Your task to perform on an android device: check android version Image 0: 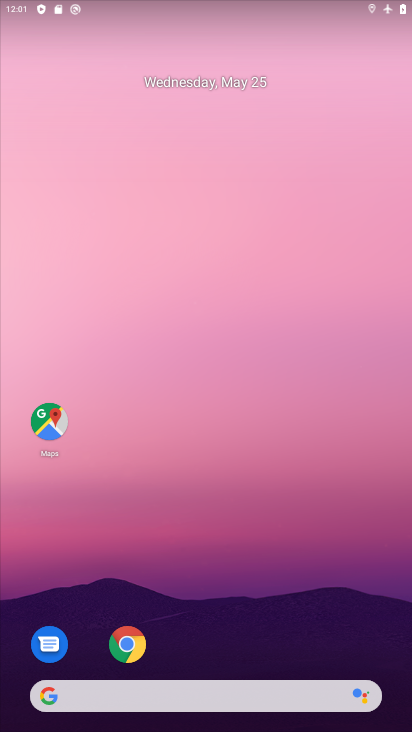
Step 0: drag from (292, 576) to (147, 23)
Your task to perform on an android device: check android version Image 1: 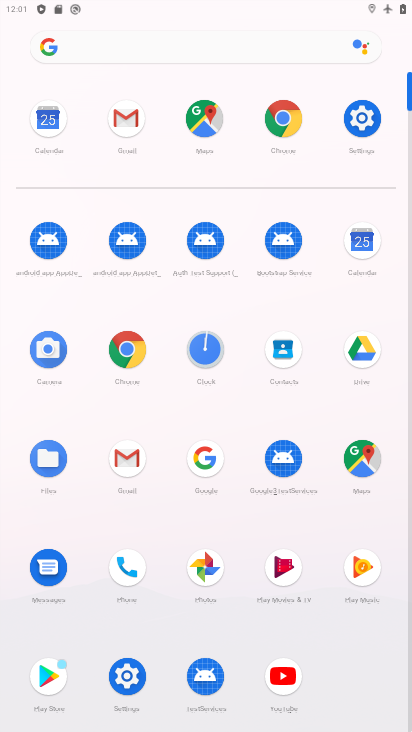
Step 1: click (366, 114)
Your task to perform on an android device: check android version Image 2: 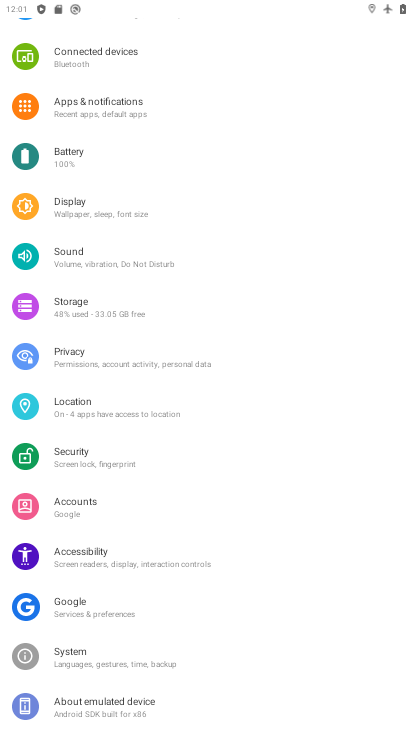
Step 2: click (86, 699)
Your task to perform on an android device: check android version Image 3: 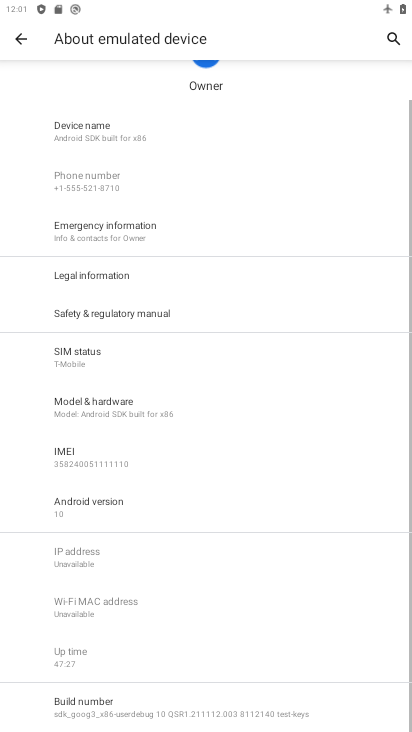
Step 3: task complete